Your task to perform on an android device: Search for seafood restaurants on Google Maps Image 0: 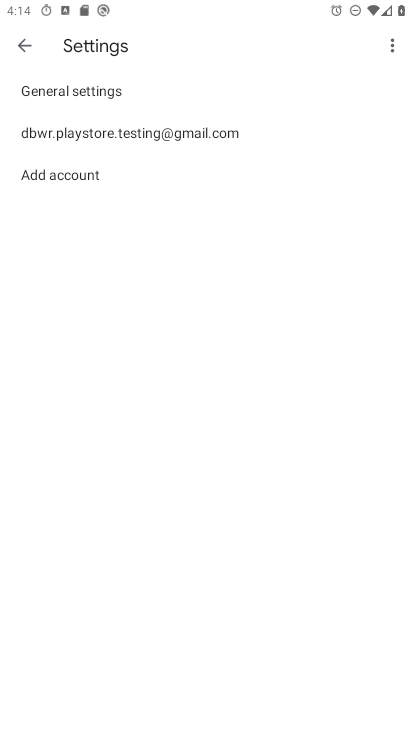
Step 0: press home button
Your task to perform on an android device: Search for seafood restaurants on Google Maps Image 1: 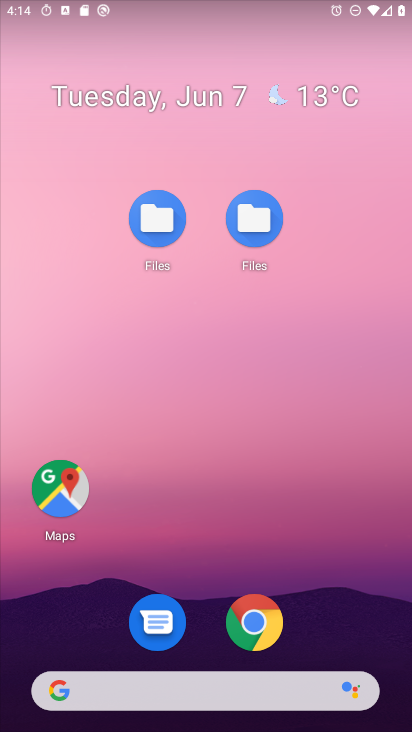
Step 1: click (247, 616)
Your task to perform on an android device: Search for seafood restaurants on Google Maps Image 2: 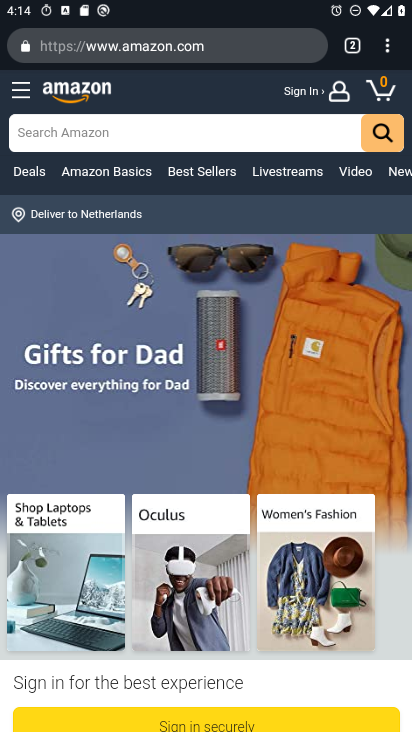
Step 2: press home button
Your task to perform on an android device: Search for seafood restaurants on Google Maps Image 3: 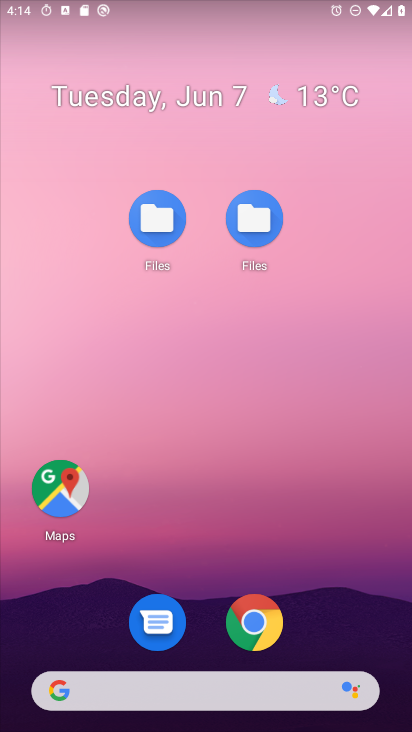
Step 3: click (84, 484)
Your task to perform on an android device: Search for seafood restaurants on Google Maps Image 4: 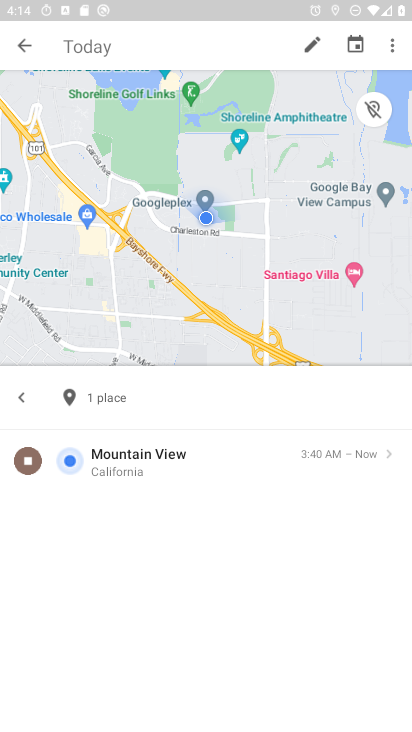
Step 4: click (107, 35)
Your task to perform on an android device: Search for seafood restaurants on Google Maps Image 5: 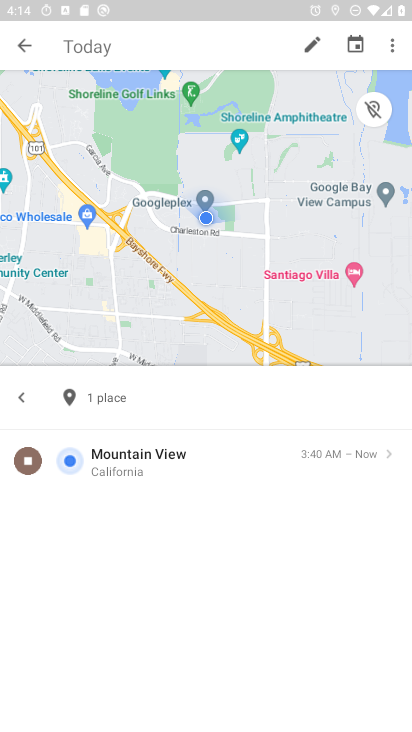
Step 5: click (107, 35)
Your task to perform on an android device: Search for seafood restaurants on Google Maps Image 6: 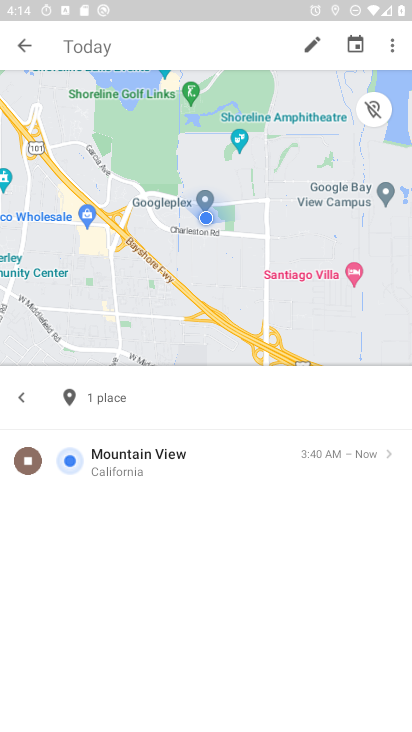
Step 6: click (107, 35)
Your task to perform on an android device: Search for seafood restaurants on Google Maps Image 7: 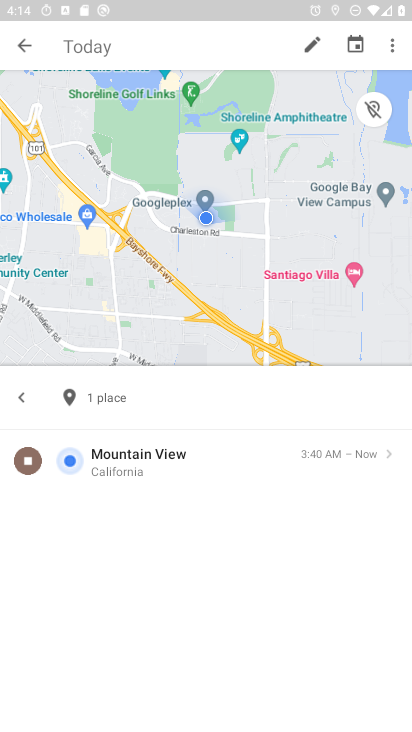
Step 7: click (26, 42)
Your task to perform on an android device: Search for seafood restaurants on Google Maps Image 8: 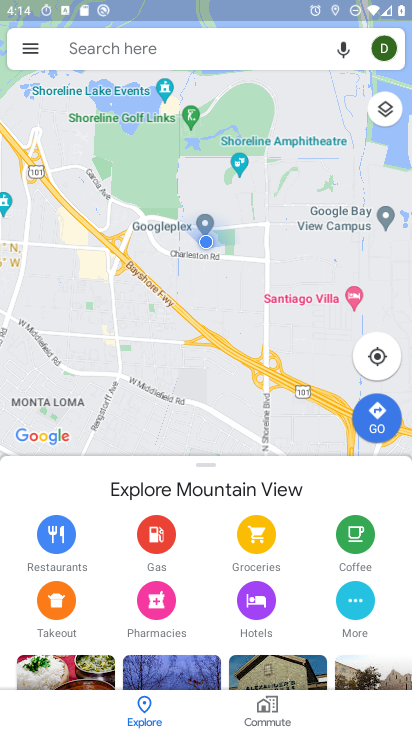
Step 8: click (91, 48)
Your task to perform on an android device: Search for seafood restaurants on Google Maps Image 9: 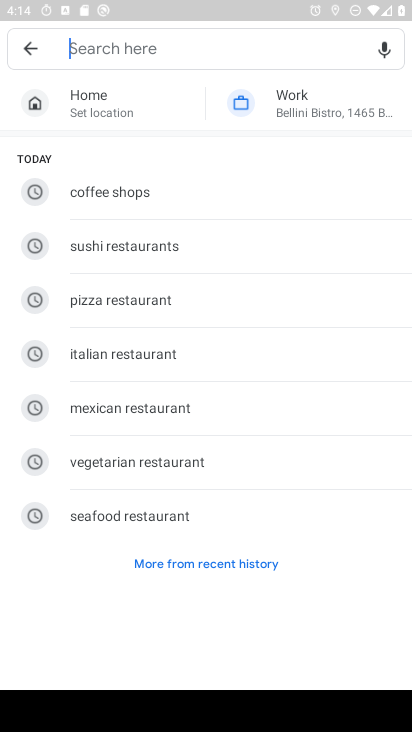
Step 9: click (114, 514)
Your task to perform on an android device: Search for seafood restaurants on Google Maps Image 10: 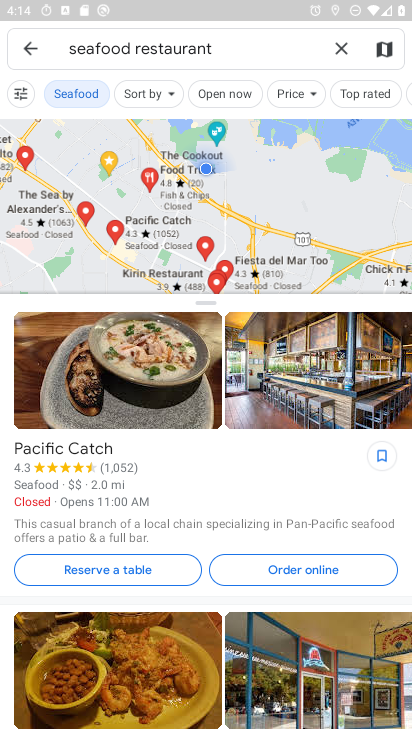
Step 10: task complete